Your task to perform on an android device: Check the news Image 0: 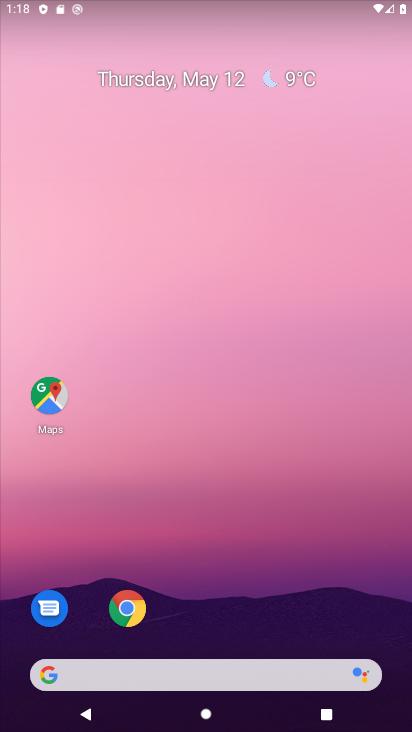
Step 0: click (130, 611)
Your task to perform on an android device: Check the news Image 1: 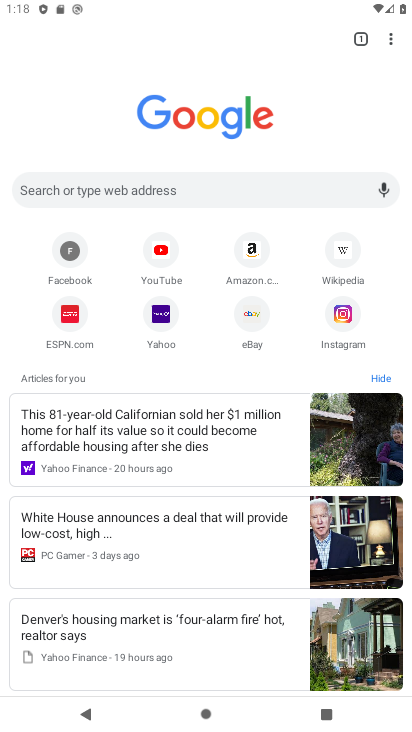
Step 1: click (255, 192)
Your task to perform on an android device: Check the news Image 2: 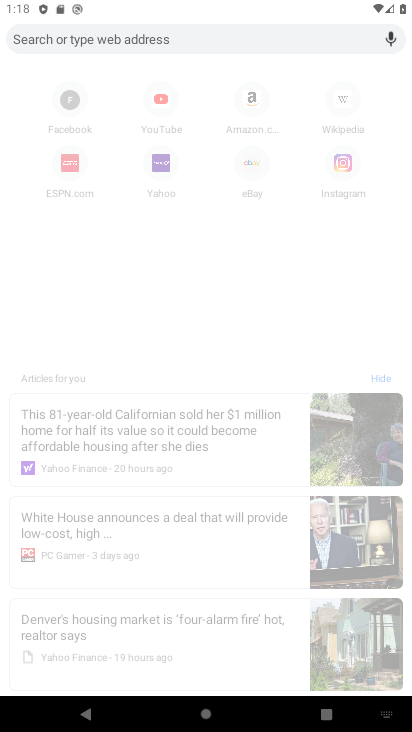
Step 2: type "news"
Your task to perform on an android device: Check the news Image 3: 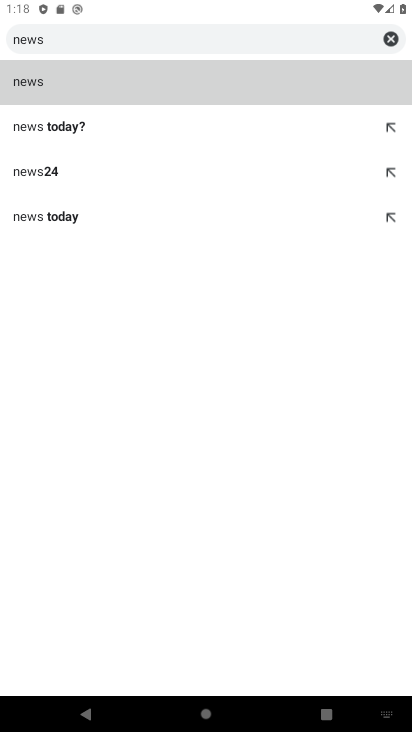
Step 3: click (139, 81)
Your task to perform on an android device: Check the news Image 4: 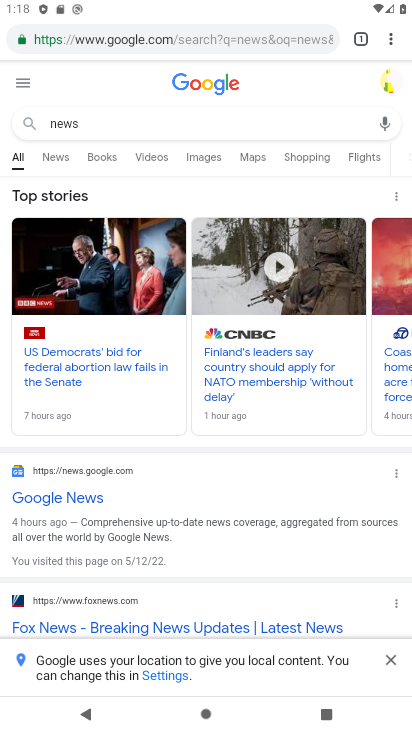
Step 4: click (57, 157)
Your task to perform on an android device: Check the news Image 5: 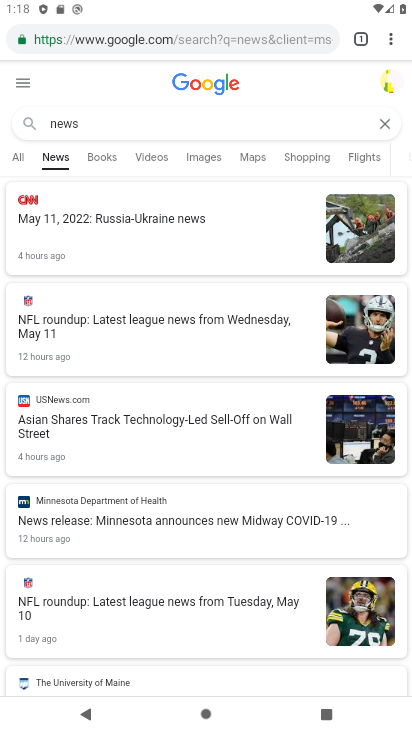
Step 5: task complete